Your task to perform on an android device: turn on javascript in the chrome app Image 0: 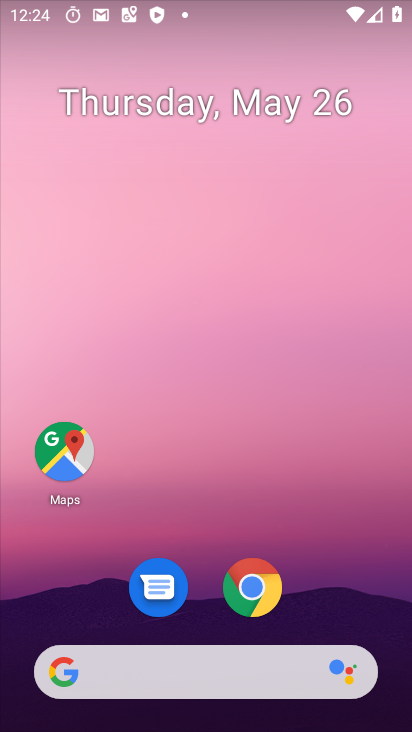
Step 0: press home button
Your task to perform on an android device: turn on javascript in the chrome app Image 1: 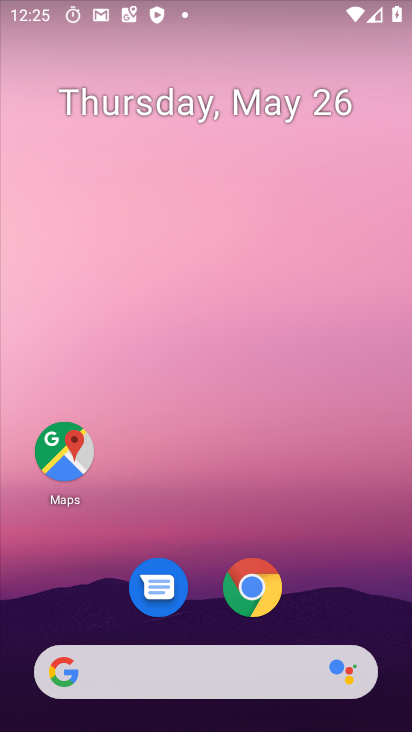
Step 1: drag from (217, 699) to (309, 104)
Your task to perform on an android device: turn on javascript in the chrome app Image 2: 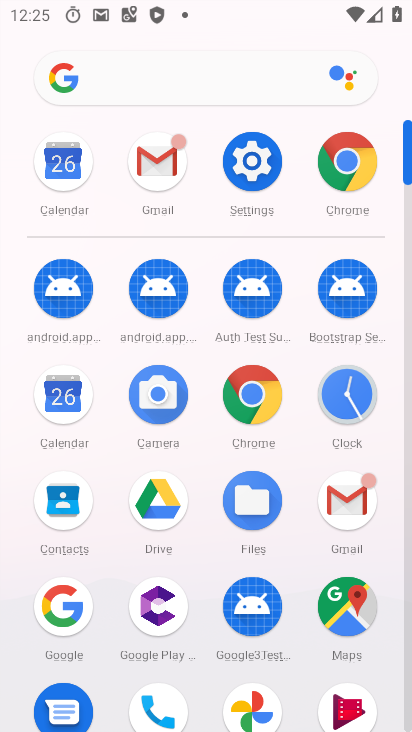
Step 2: click (232, 389)
Your task to perform on an android device: turn on javascript in the chrome app Image 3: 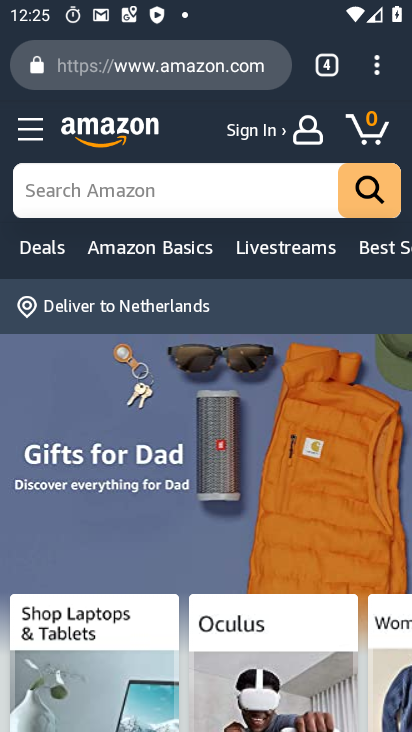
Step 3: click (361, 80)
Your task to perform on an android device: turn on javascript in the chrome app Image 4: 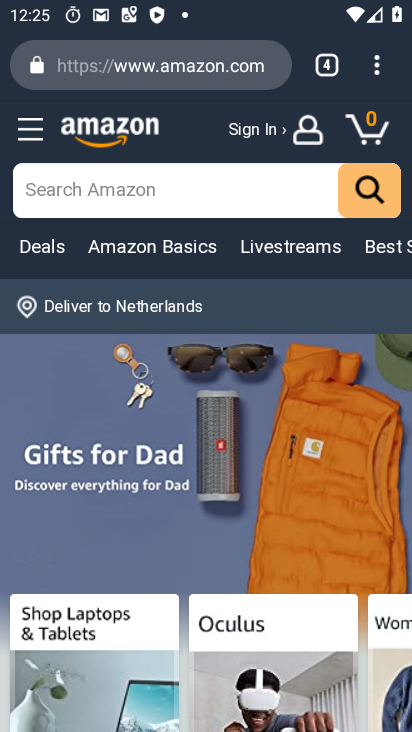
Step 4: click (369, 77)
Your task to perform on an android device: turn on javascript in the chrome app Image 5: 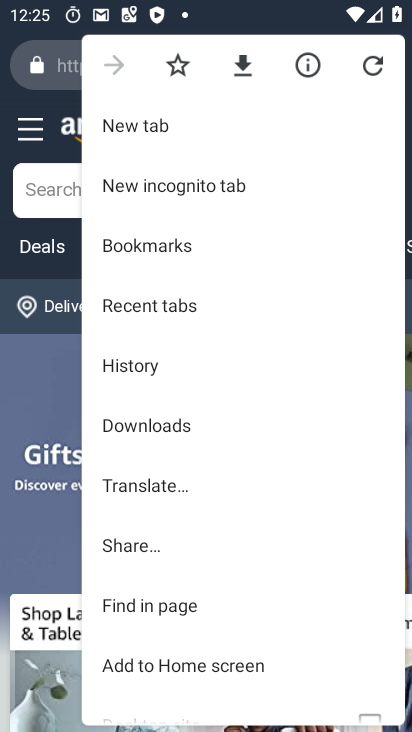
Step 5: drag from (255, 525) to (259, 236)
Your task to perform on an android device: turn on javascript in the chrome app Image 6: 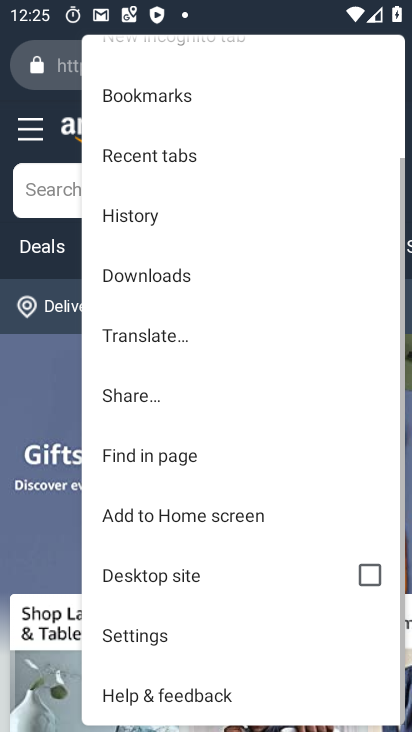
Step 6: click (143, 626)
Your task to perform on an android device: turn on javascript in the chrome app Image 7: 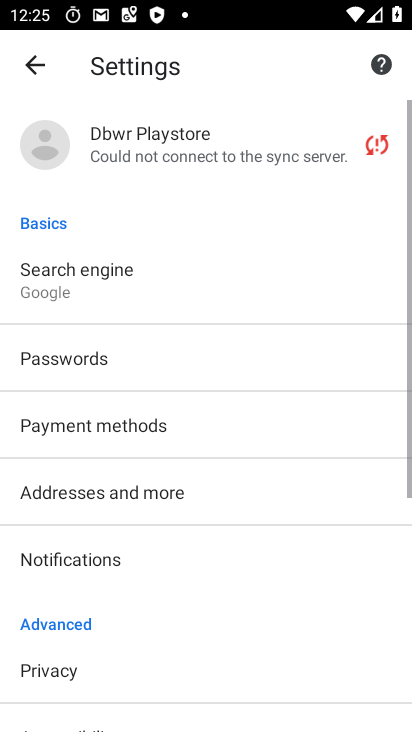
Step 7: drag from (174, 617) to (213, 361)
Your task to perform on an android device: turn on javascript in the chrome app Image 8: 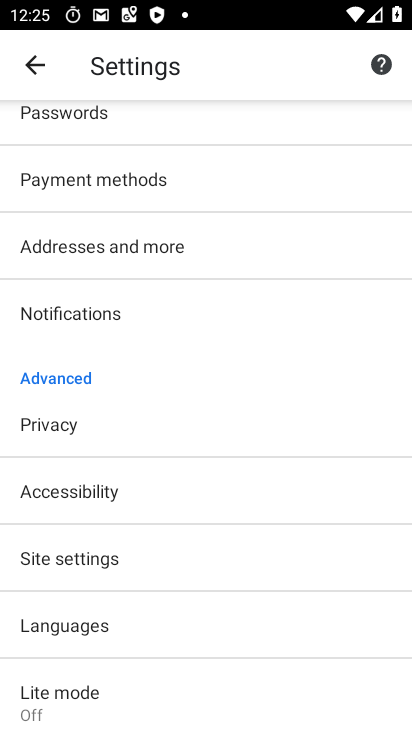
Step 8: click (80, 558)
Your task to perform on an android device: turn on javascript in the chrome app Image 9: 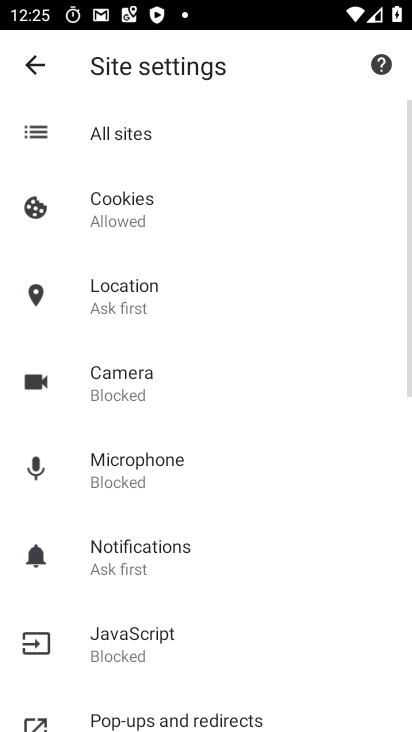
Step 9: click (130, 643)
Your task to perform on an android device: turn on javascript in the chrome app Image 10: 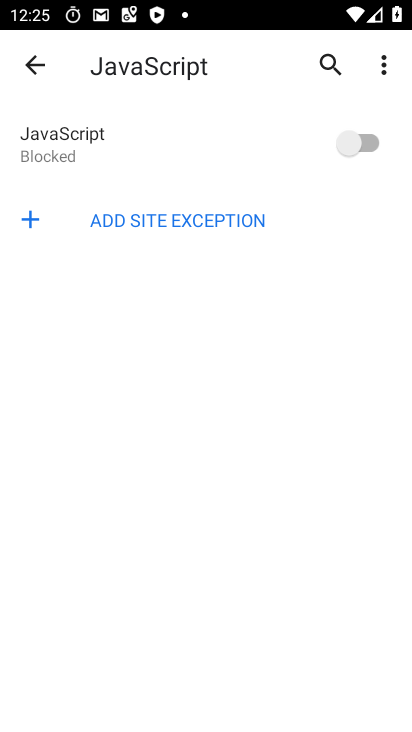
Step 10: click (370, 131)
Your task to perform on an android device: turn on javascript in the chrome app Image 11: 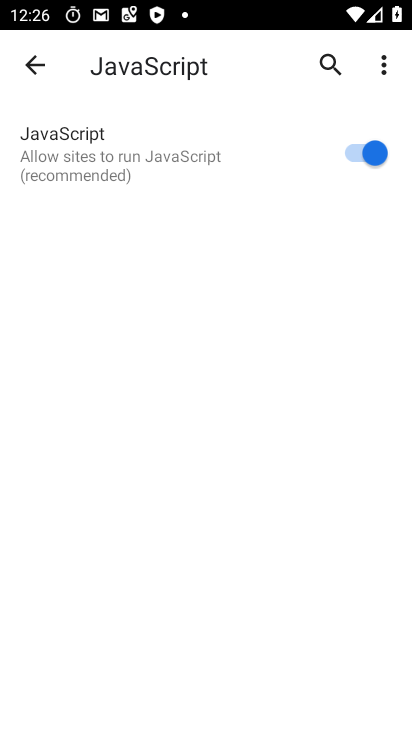
Step 11: task complete